Your task to perform on an android device: turn off wifi Image 0: 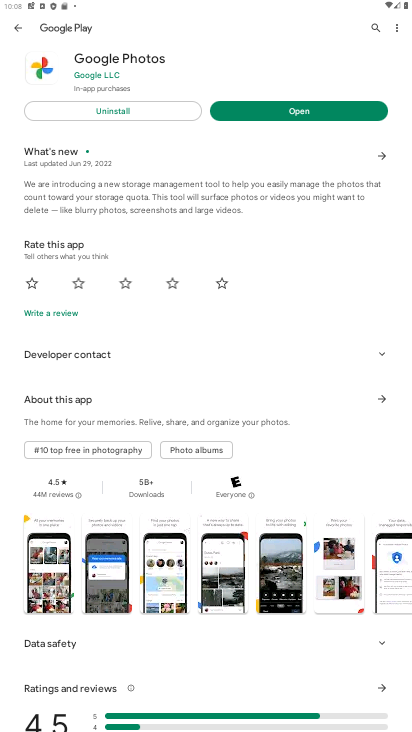
Step 0: press home button
Your task to perform on an android device: turn off wifi Image 1: 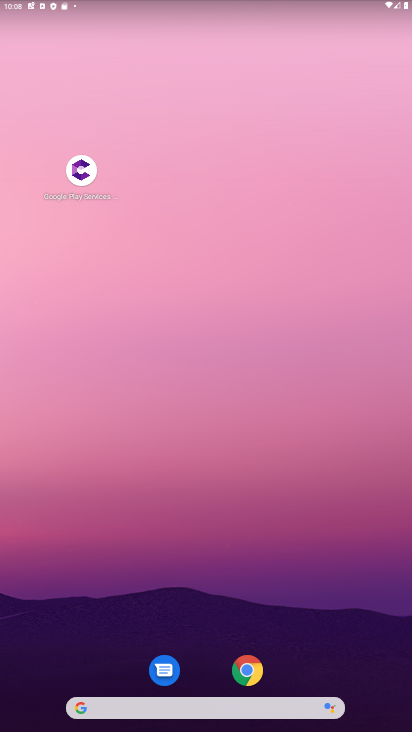
Step 1: drag from (143, 727) to (122, 51)
Your task to perform on an android device: turn off wifi Image 2: 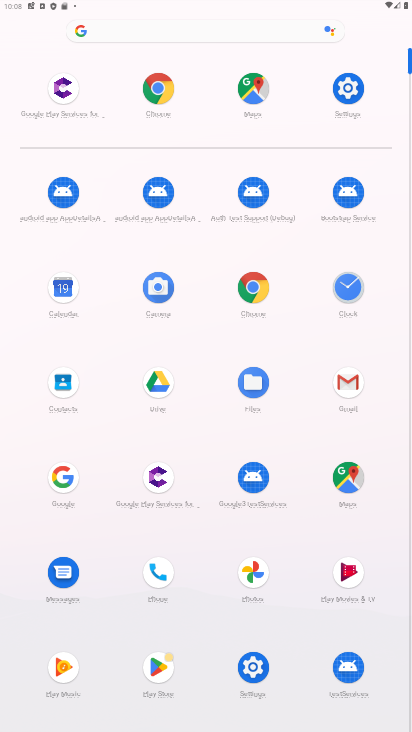
Step 2: click (347, 75)
Your task to perform on an android device: turn off wifi Image 3: 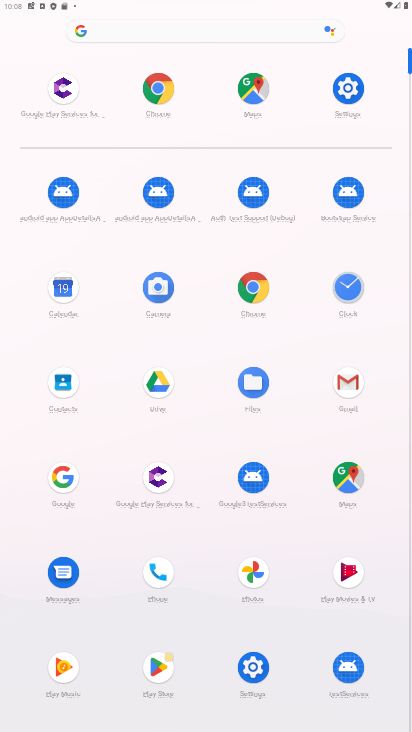
Step 3: click (347, 75)
Your task to perform on an android device: turn off wifi Image 4: 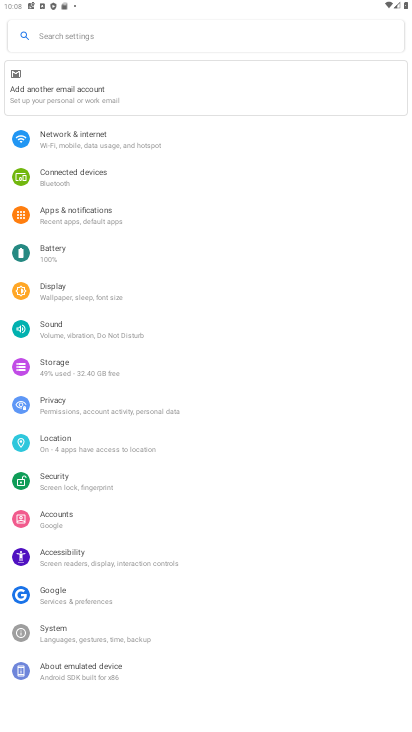
Step 4: click (164, 146)
Your task to perform on an android device: turn off wifi Image 5: 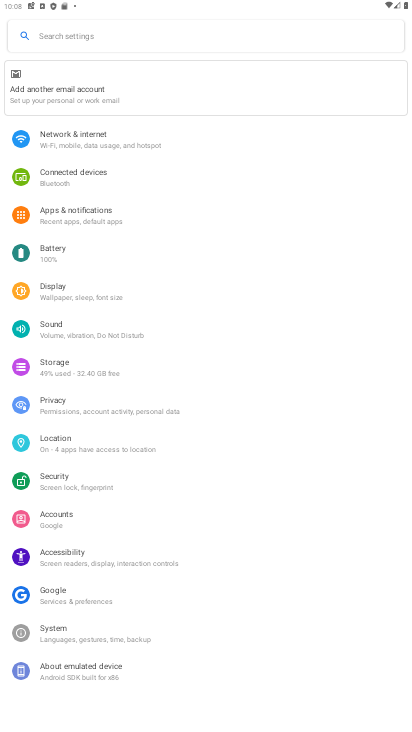
Step 5: click (164, 146)
Your task to perform on an android device: turn off wifi Image 6: 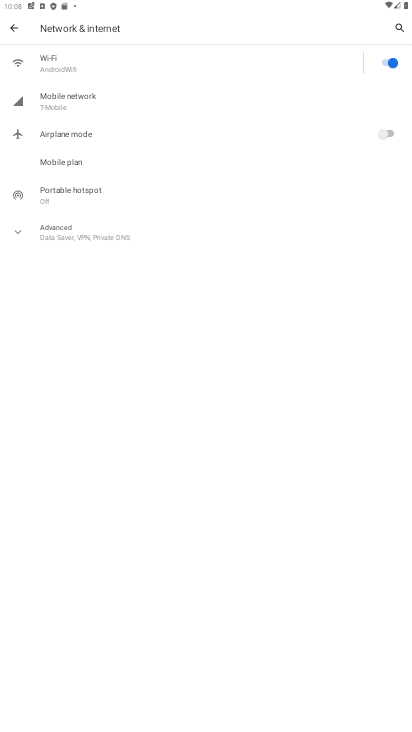
Step 6: click (389, 58)
Your task to perform on an android device: turn off wifi Image 7: 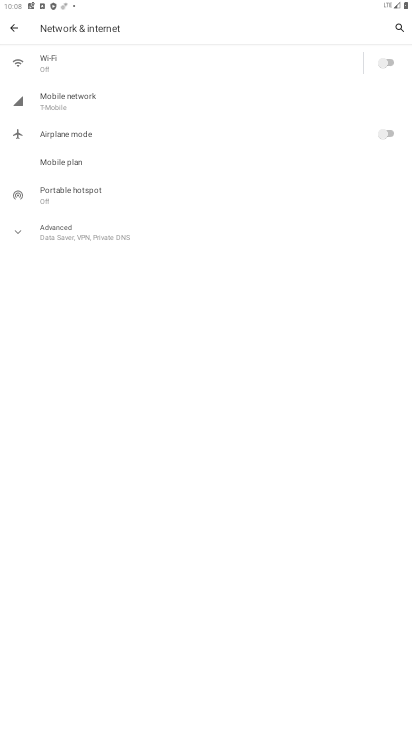
Step 7: task complete